Your task to perform on an android device: Open the web browser Image 0: 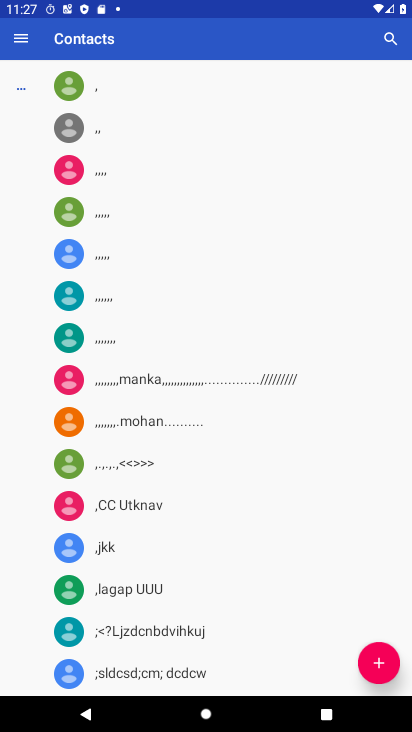
Step 0: press home button
Your task to perform on an android device: Open the web browser Image 1: 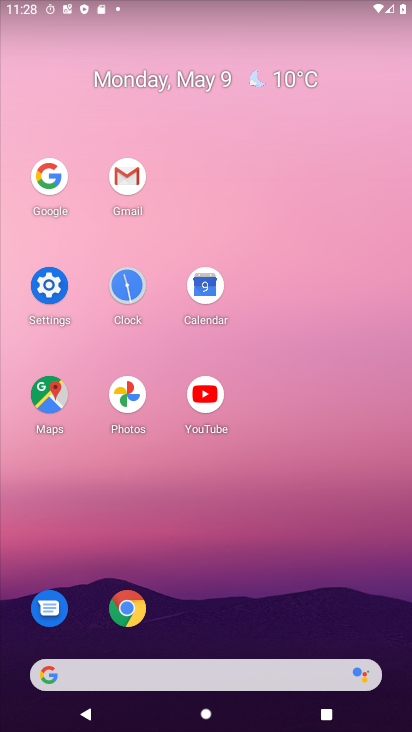
Step 1: click (133, 613)
Your task to perform on an android device: Open the web browser Image 2: 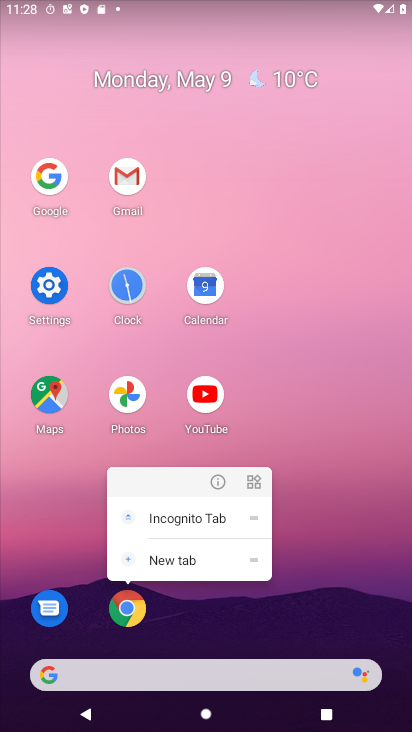
Step 2: click (134, 611)
Your task to perform on an android device: Open the web browser Image 3: 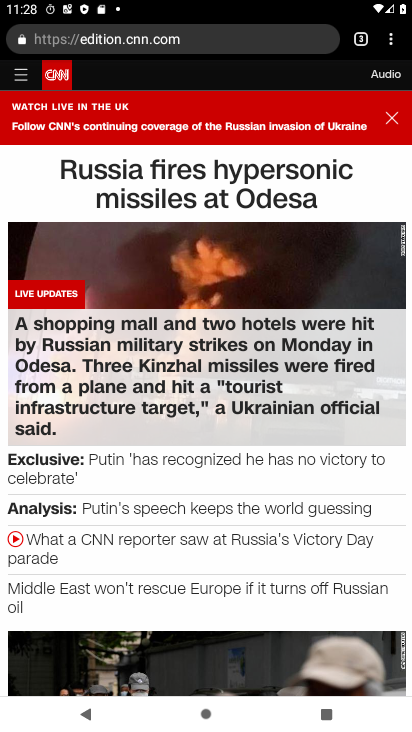
Step 3: task complete